Your task to perform on an android device: turn on priority inbox in the gmail app Image 0: 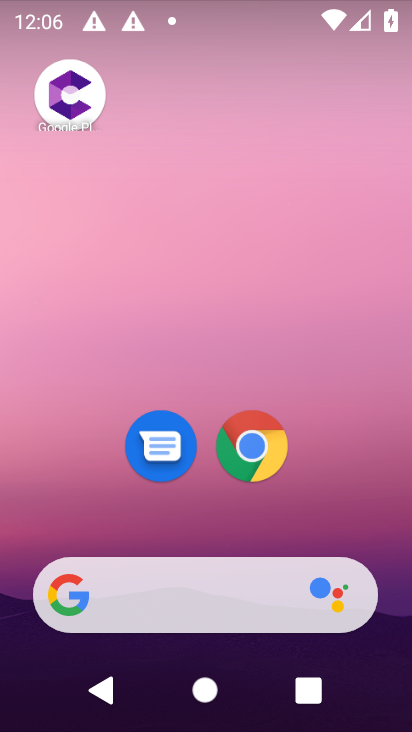
Step 0: drag from (242, 399) to (268, 14)
Your task to perform on an android device: turn on priority inbox in the gmail app Image 1: 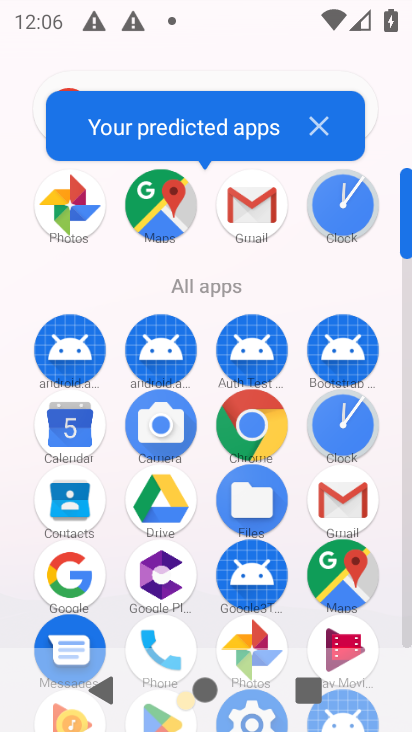
Step 1: click (244, 208)
Your task to perform on an android device: turn on priority inbox in the gmail app Image 2: 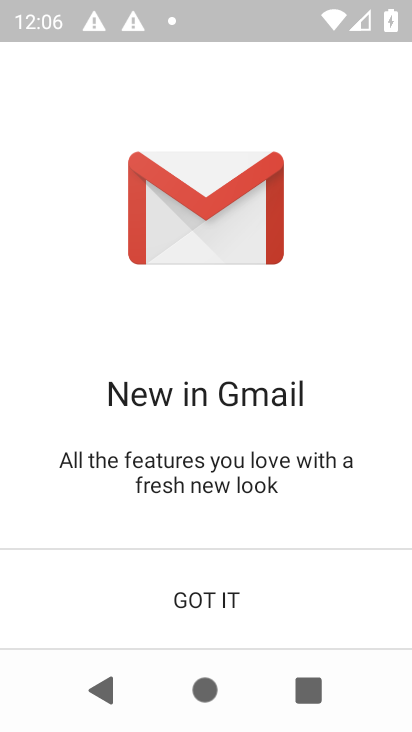
Step 2: click (183, 593)
Your task to perform on an android device: turn on priority inbox in the gmail app Image 3: 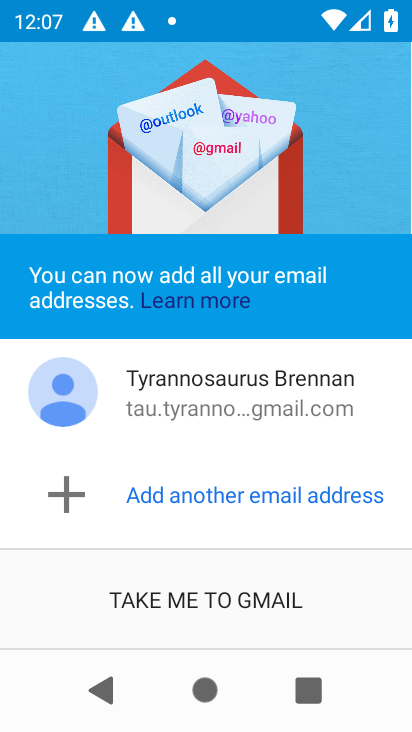
Step 3: click (205, 607)
Your task to perform on an android device: turn on priority inbox in the gmail app Image 4: 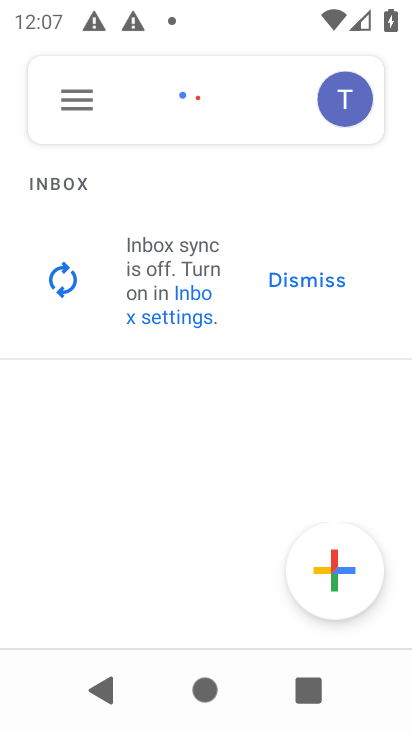
Step 4: click (84, 110)
Your task to perform on an android device: turn on priority inbox in the gmail app Image 5: 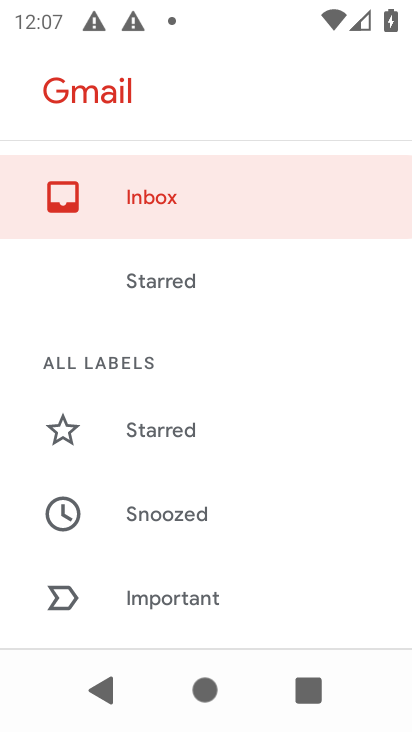
Step 5: drag from (237, 588) to (241, 42)
Your task to perform on an android device: turn on priority inbox in the gmail app Image 6: 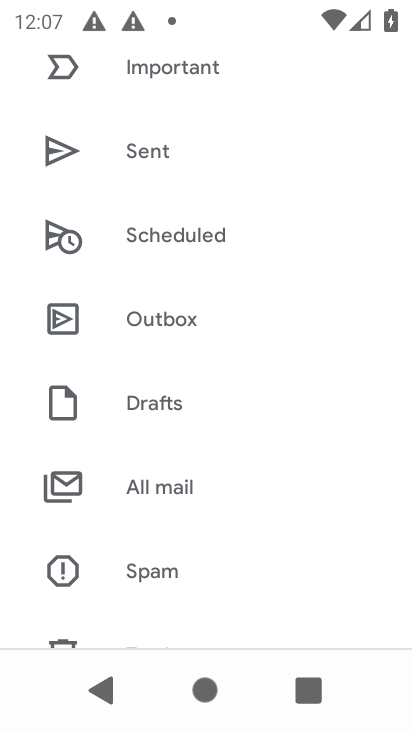
Step 6: drag from (264, 534) to (285, 61)
Your task to perform on an android device: turn on priority inbox in the gmail app Image 7: 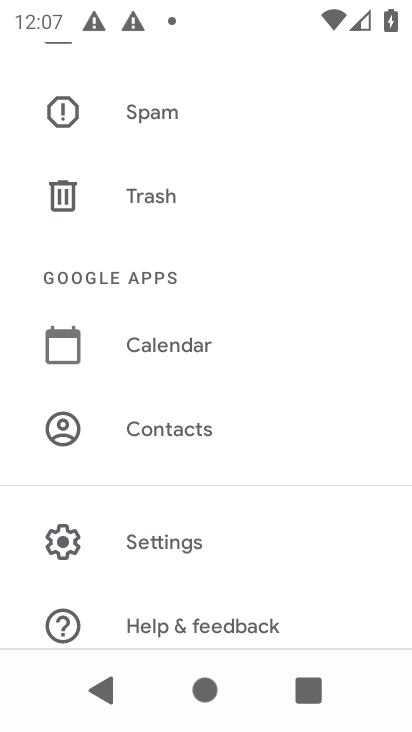
Step 7: click (173, 539)
Your task to perform on an android device: turn on priority inbox in the gmail app Image 8: 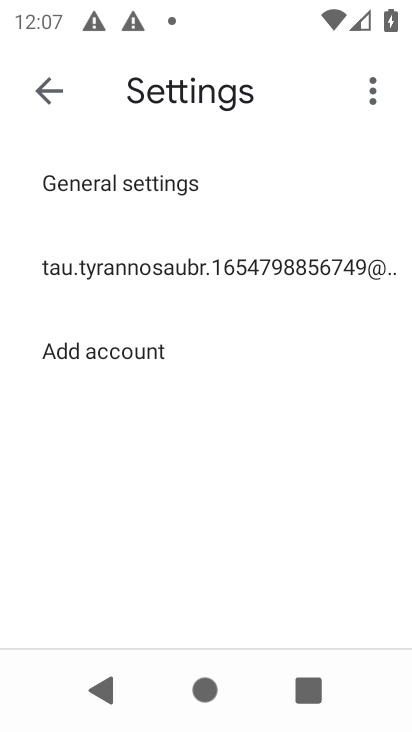
Step 8: click (190, 272)
Your task to perform on an android device: turn on priority inbox in the gmail app Image 9: 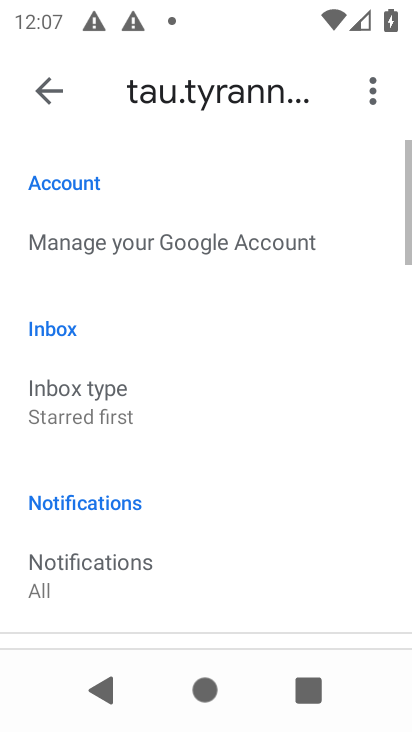
Step 9: drag from (263, 328) to (247, 109)
Your task to perform on an android device: turn on priority inbox in the gmail app Image 10: 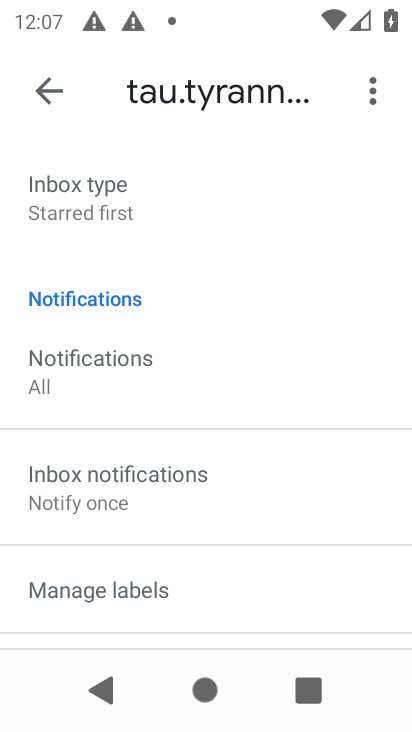
Step 10: drag from (301, 482) to (296, 696)
Your task to perform on an android device: turn on priority inbox in the gmail app Image 11: 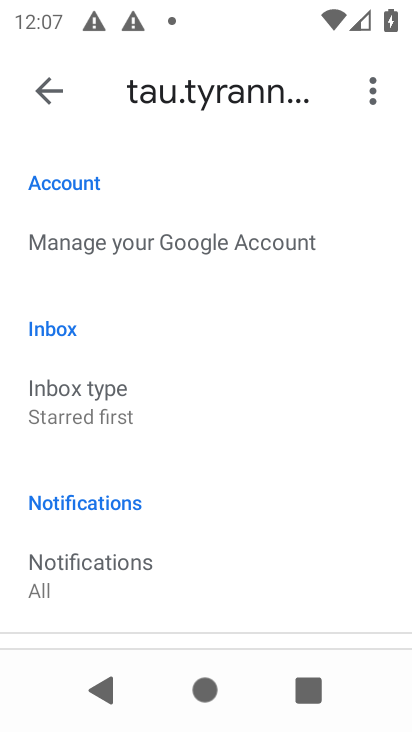
Step 11: click (68, 414)
Your task to perform on an android device: turn on priority inbox in the gmail app Image 12: 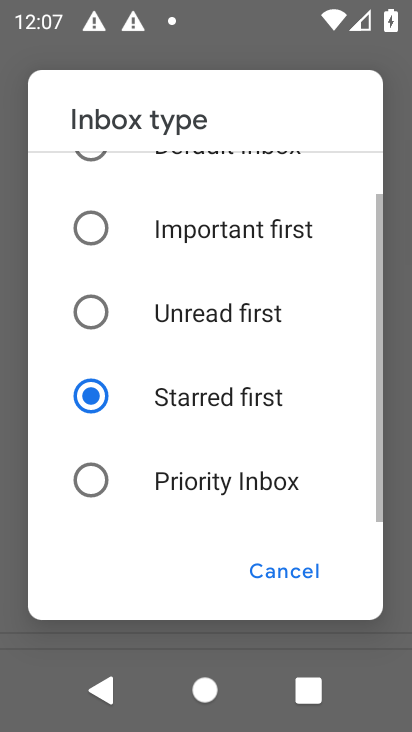
Step 12: click (92, 493)
Your task to perform on an android device: turn on priority inbox in the gmail app Image 13: 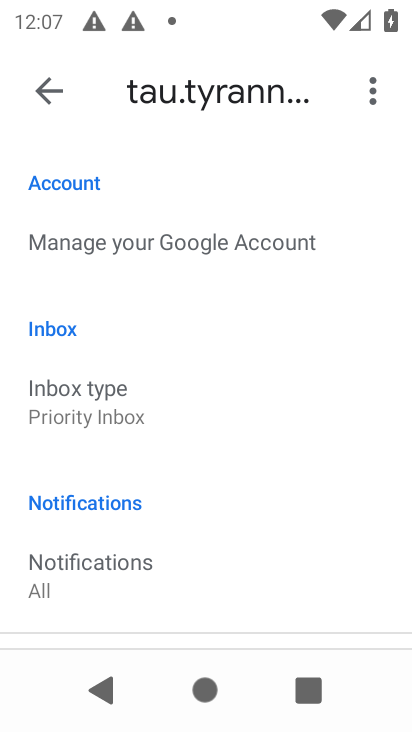
Step 13: task complete